Your task to perform on an android device: turn on wifi Image 0: 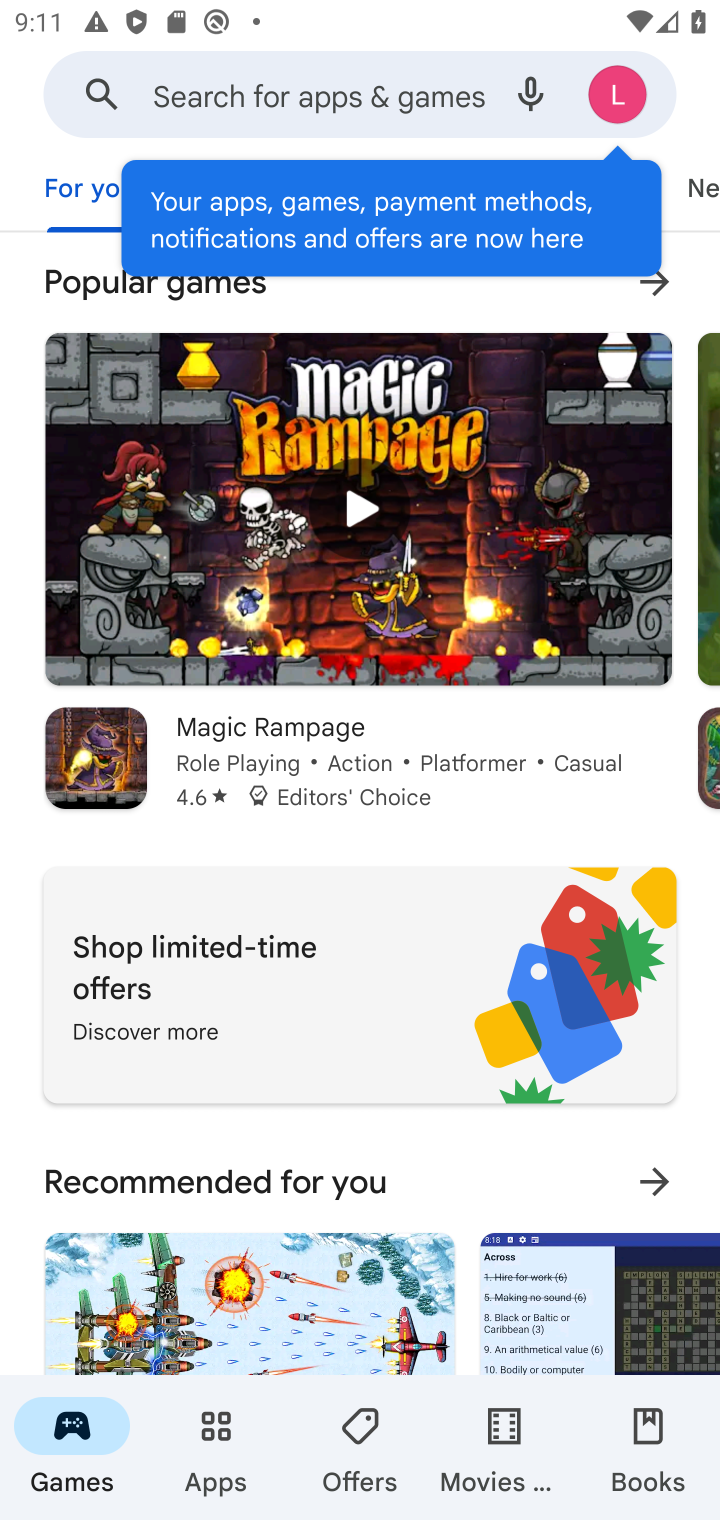
Step 0: press home button
Your task to perform on an android device: turn on wifi Image 1: 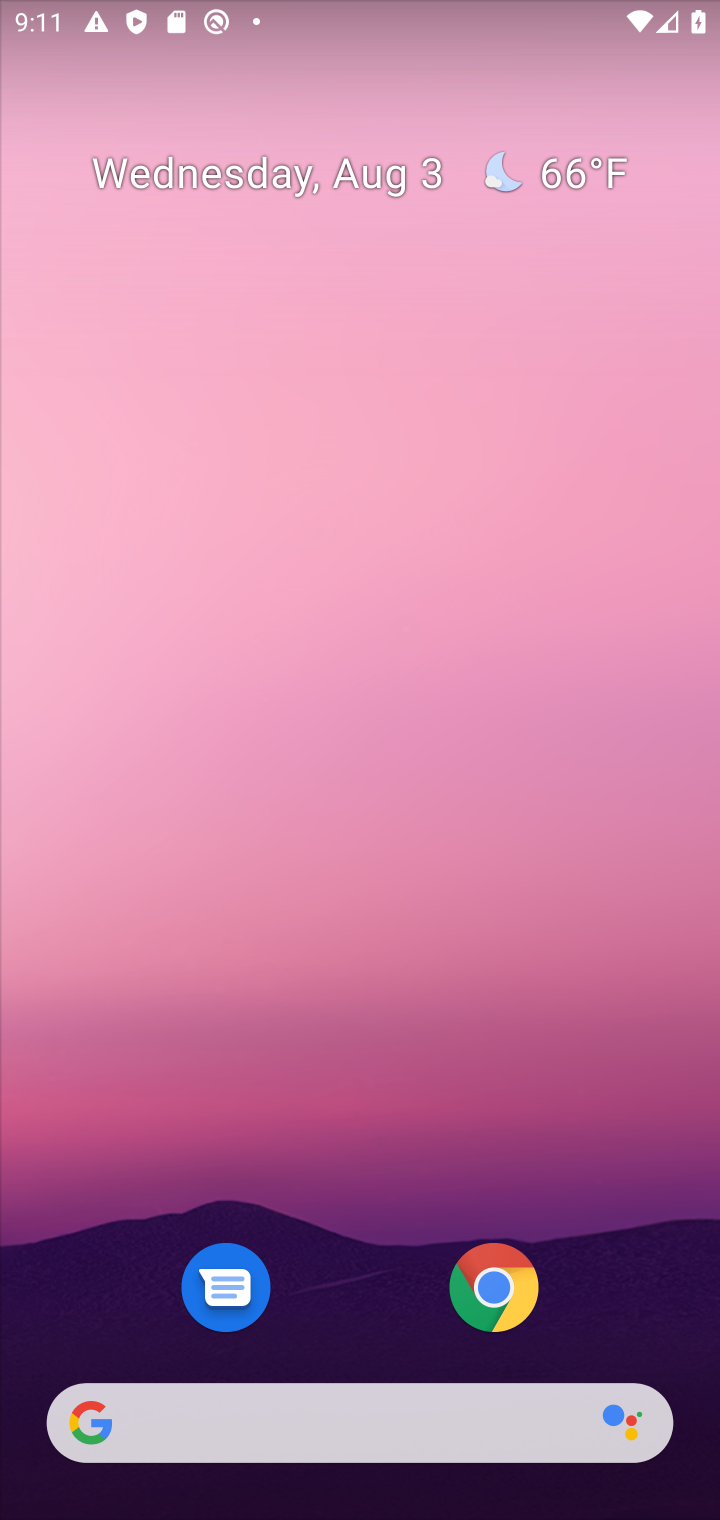
Step 1: drag from (350, 65) to (317, 1222)
Your task to perform on an android device: turn on wifi Image 2: 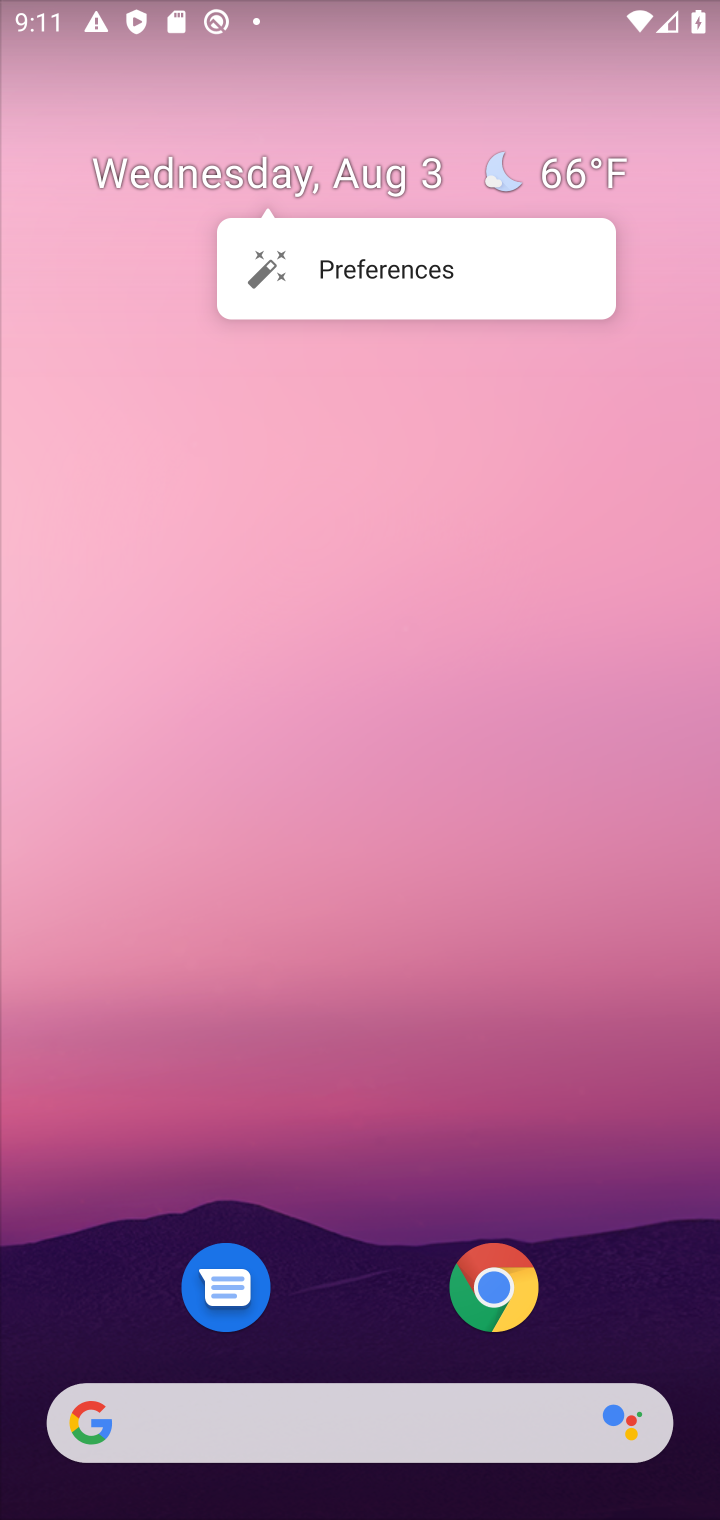
Step 2: drag from (169, 3) to (168, 771)
Your task to perform on an android device: turn on wifi Image 3: 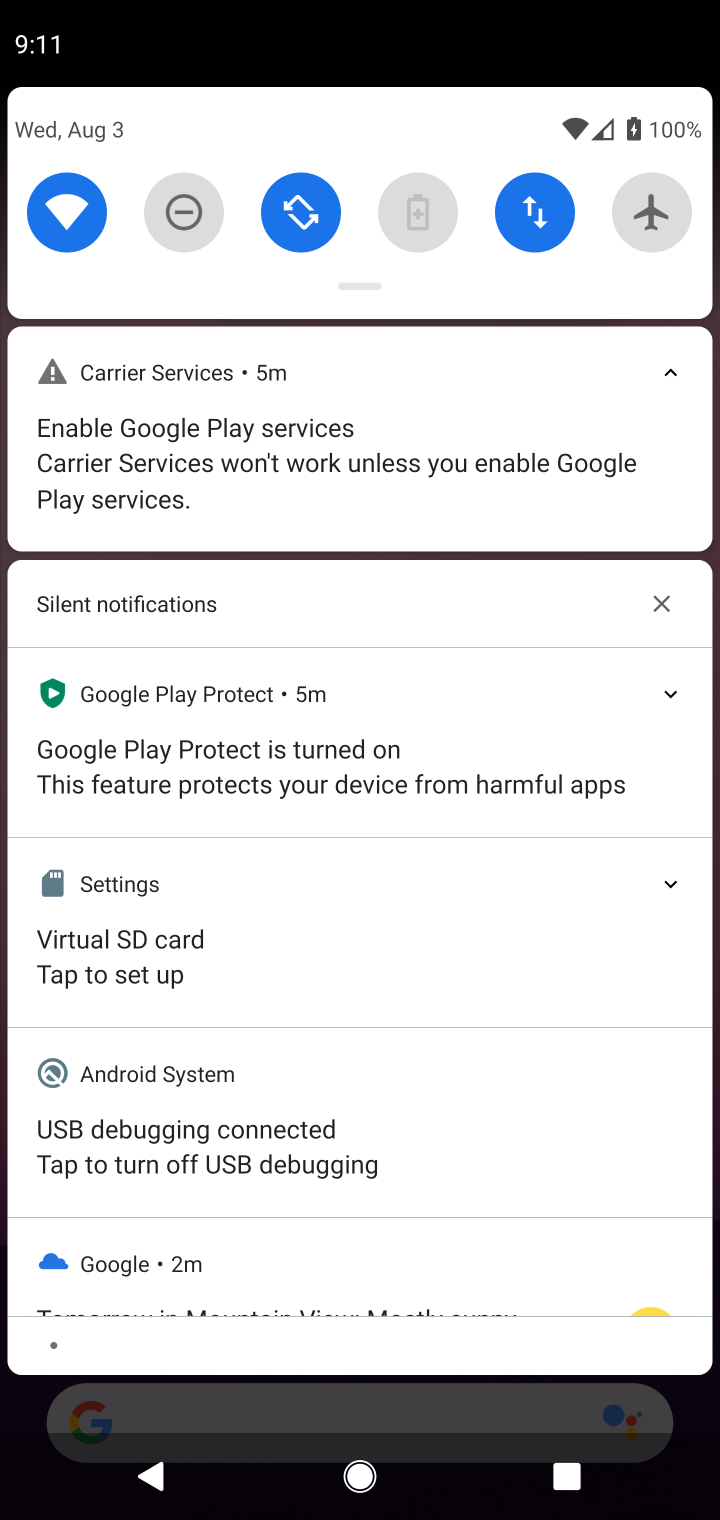
Step 3: click (65, 205)
Your task to perform on an android device: turn on wifi Image 4: 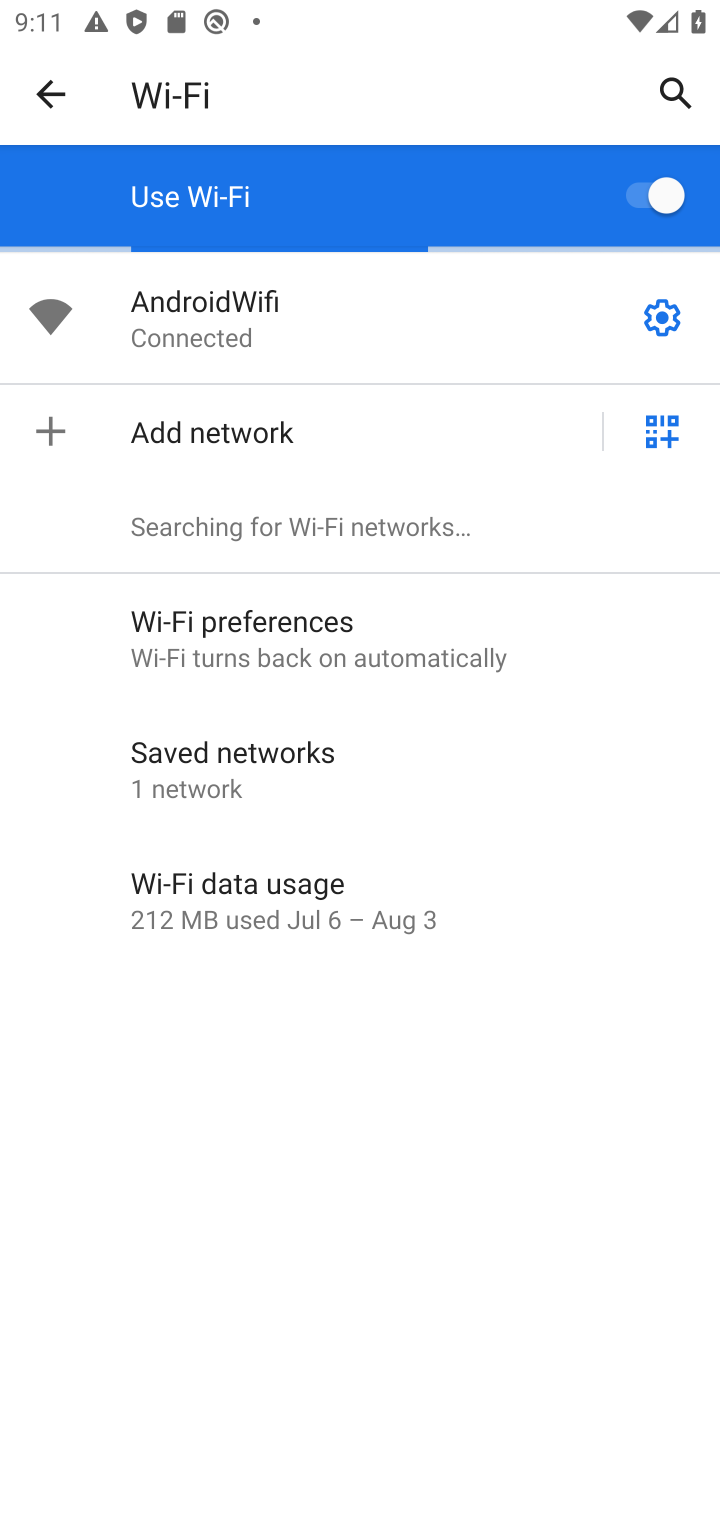
Step 4: click (637, 198)
Your task to perform on an android device: turn on wifi Image 5: 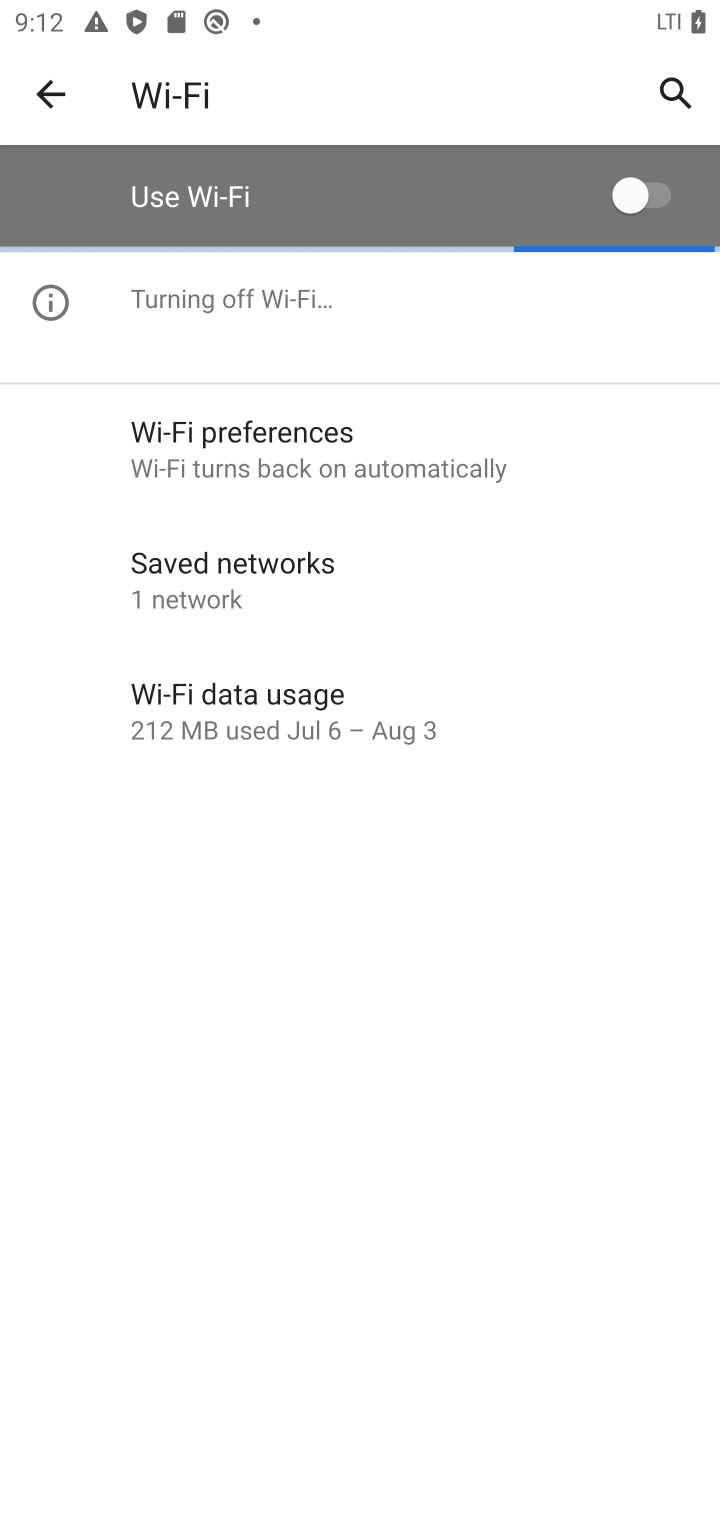
Step 5: task complete